Your task to perform on an android device: toggle javascript in the chrome app Image 0: 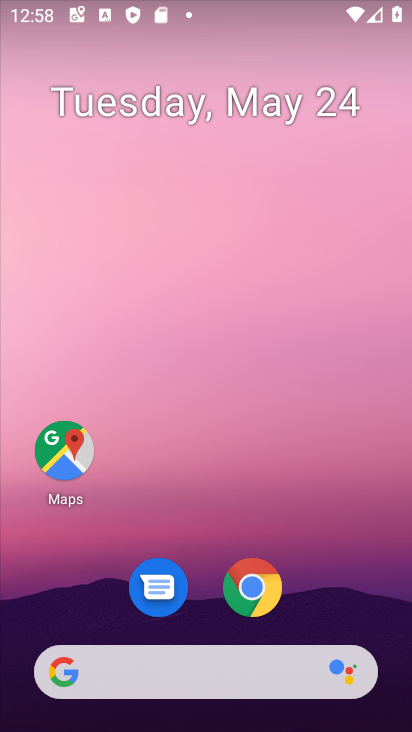
Step 0: click (260, 593)
Your task to perform on an android device: toggle javascript in the chrome app Image 1: 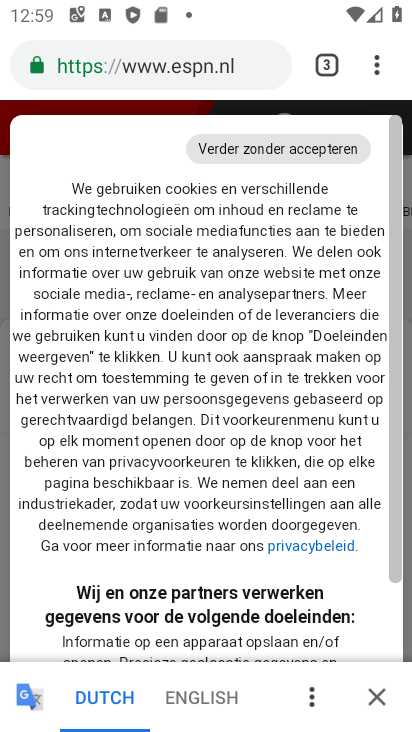
Step 1: click (370, 57)
Your task to perform on an android device: toggle javascript in the chrome app Image 2: 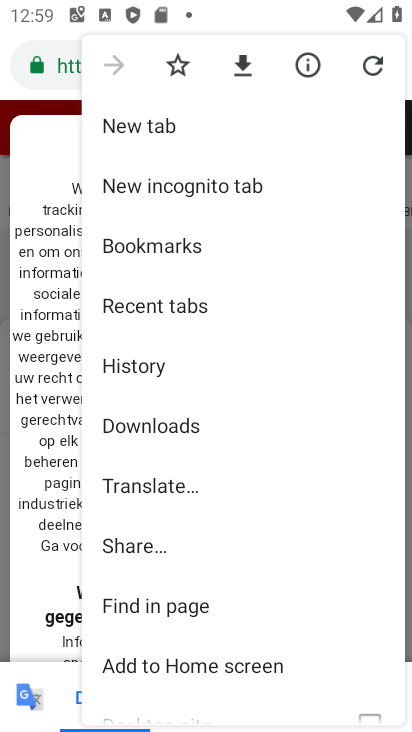
Step 2: drag from (254, 587) to (230, 157)
Your task to perform on an android device: toggle javascript in the chrome app Image 3: 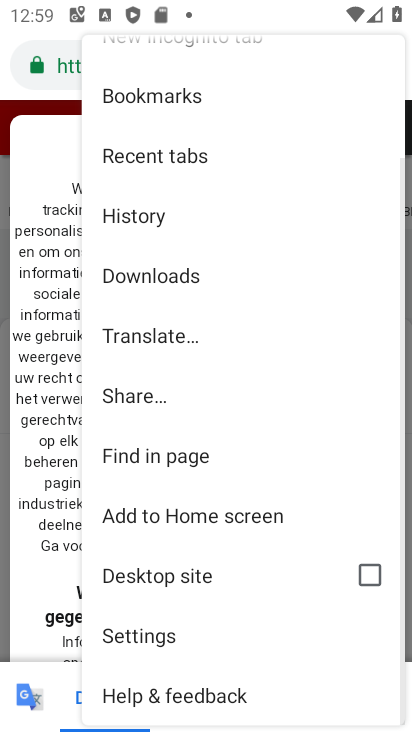
Step 3: click (182, 630)
Your task to perform on an android device: toggle javascript in the chrome app Image 4: 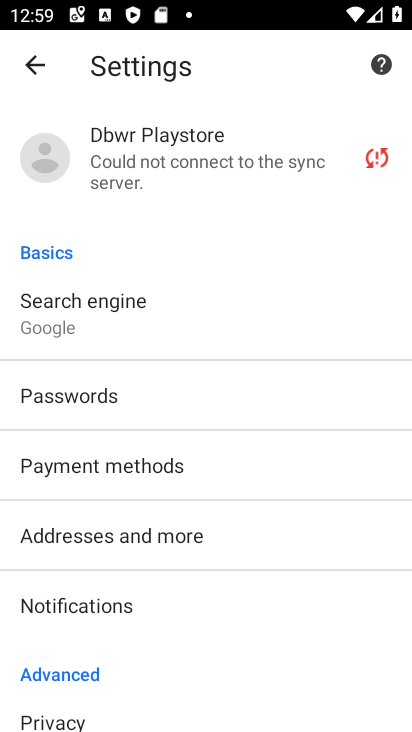
Step 4: drag from (237, 677) to (224, 303)
Your task to perform on an android device: toggle javascript in the chrome app Image 5: 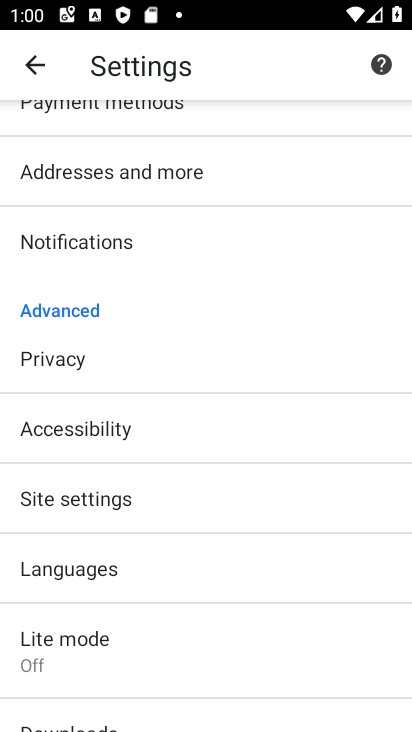
Step 5: click (85, 486)
Your task to perform on an android device: toggle javascript in the chrome app Image 6: 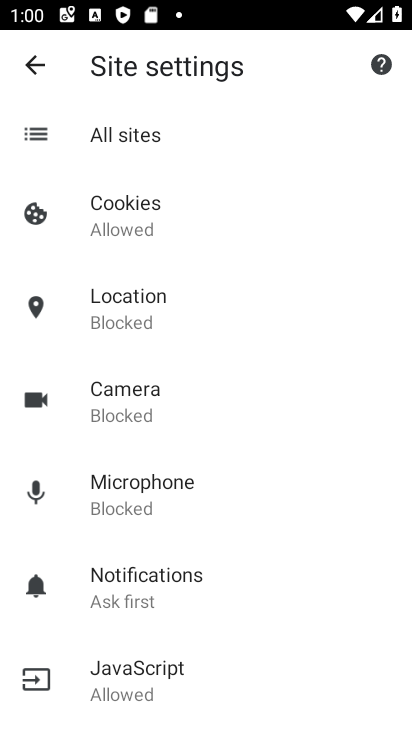
Step 6: click (162, 682)
Your task to perform on an android device: toggle javascript in the chrome app Image 7: 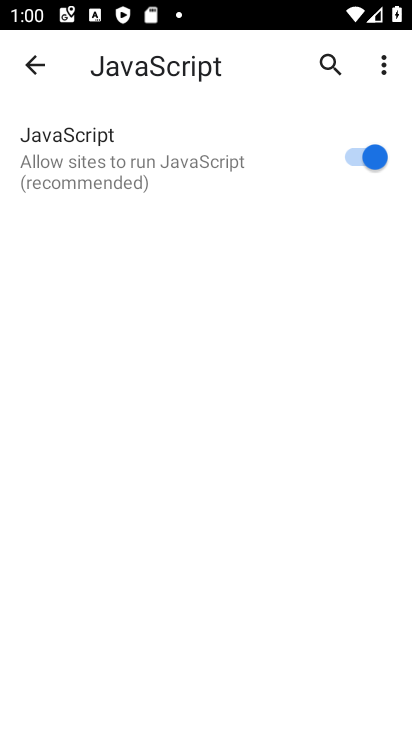
Step 7: click (380, 154)
Your task to perform on an android device: toggle javascript in the chrome app Image 8: 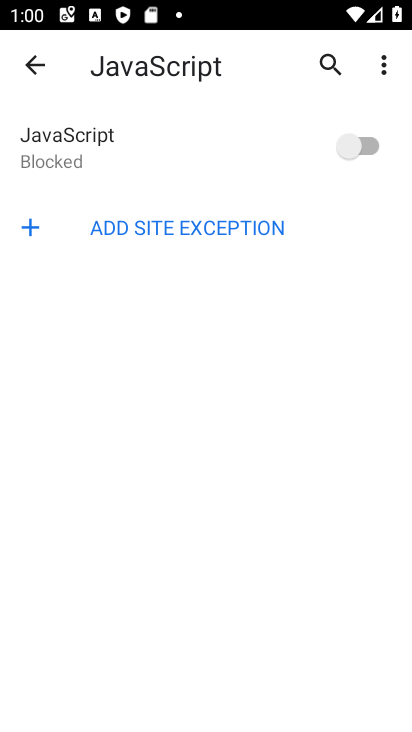
Step 8: task complete